Your task to perform on an android device: turn notification dots off Image 0: 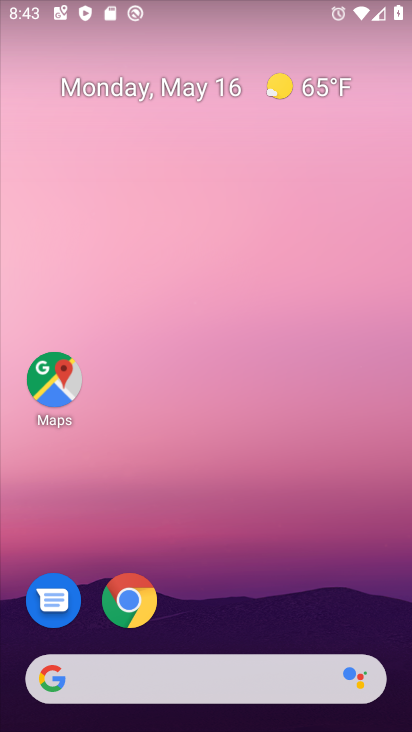
Step 0: drag from (194, 628) to (223, 166)
Your task to perform on an android device: turn notification dots off Image 1: 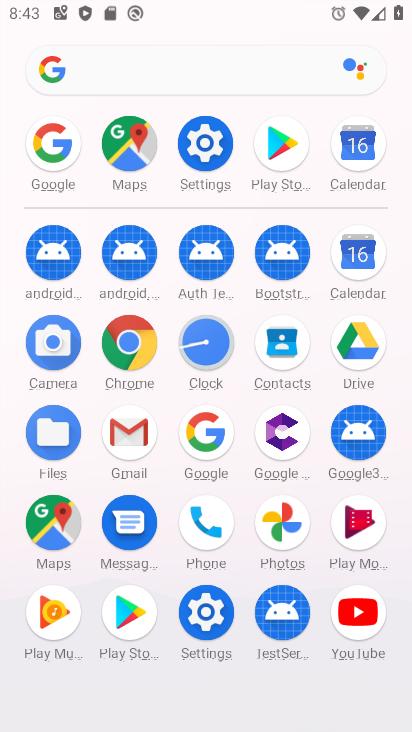
Step 1: click (205, 148)
Your task to perform on an android device: turn notification dots off Image 2: 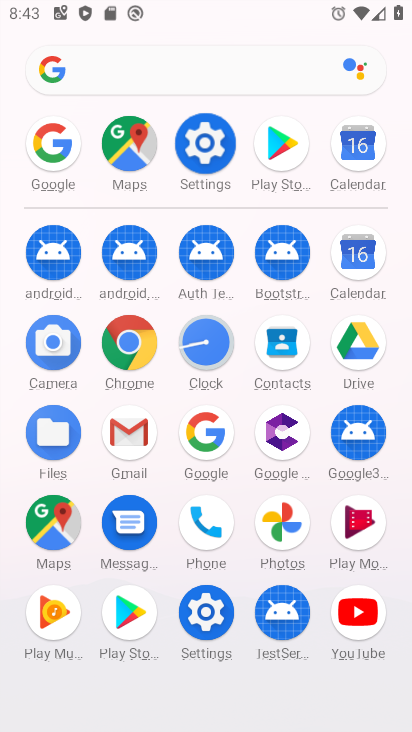
Step 2: click (206, 147)
Your task to perform on an android device: turn notification dots off Image 3: 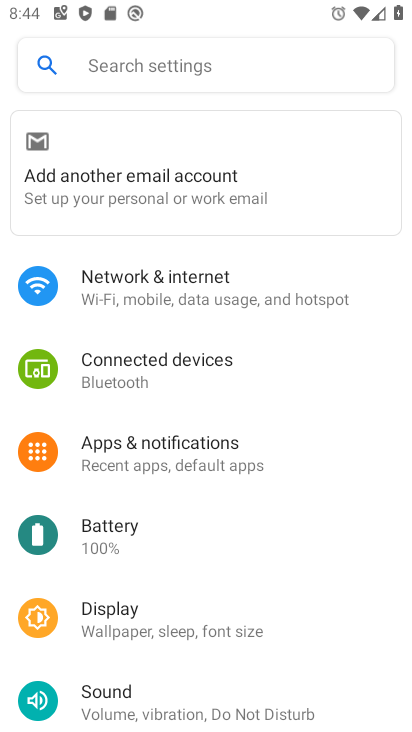
Step 3: click (179, 450)
Your task to perform on an android device: turn notification dots off Image 4: 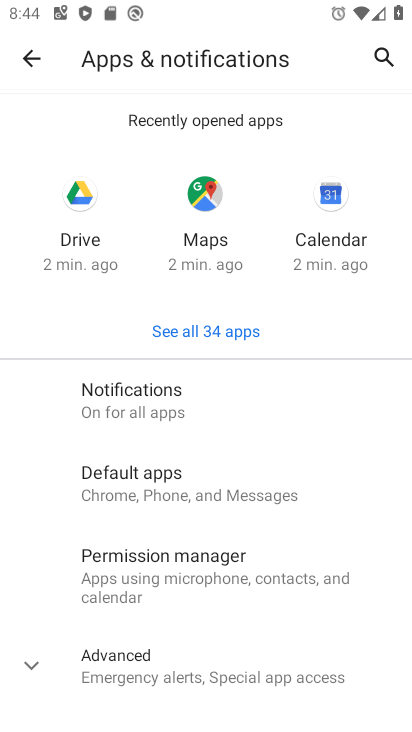
Step 4: click (220, 388)
Your task to perform on an android device: turn notification dots off Image 5: 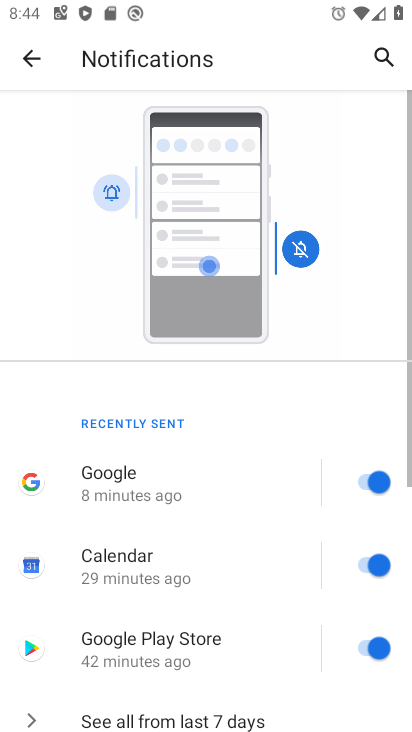
Step 5: drag from (220, 602) to (342, 21)
Your task to perform on an android device: turn notification dots off Image 6: 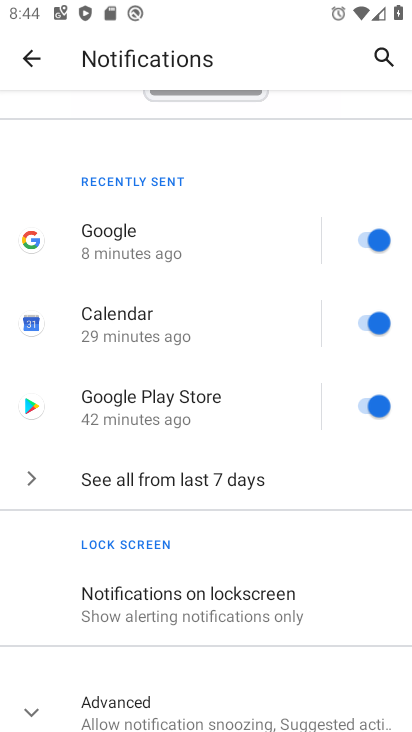
Step 6: drag from (219, 613) to (286, 204)
Your task to perform on an android device: turn notification dots off Image 7: 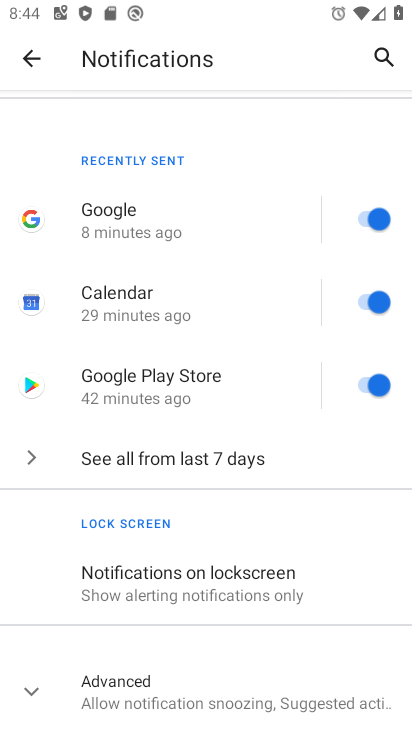
Step 7: drag from (220, 644) to (285, 236)
Your task to perform on an android device: turn notification dots off Image 8: 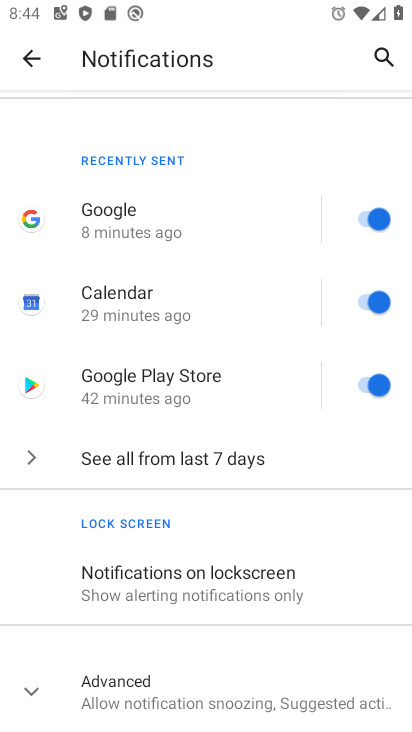
Step 8: click (196, 683)
Your task to perform on an android device: turn notification dots off Image 9: 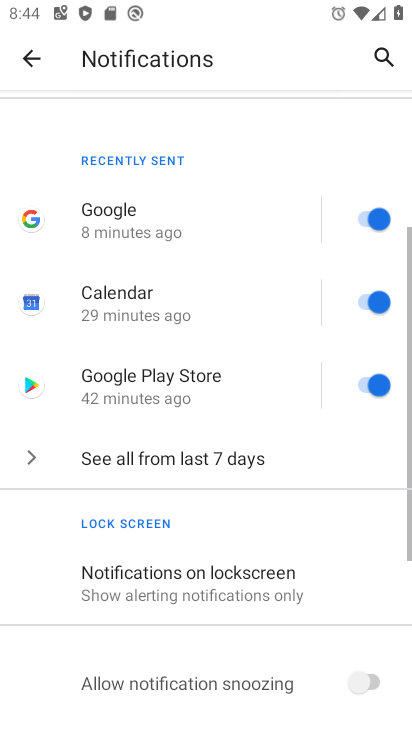
Step 9: drag from (196, 680) to (302, 13)
Your task to perform on an android device: turn notification dots off Image 10: 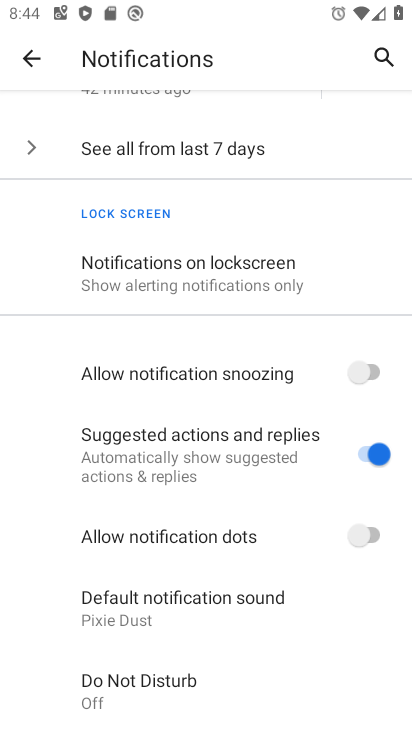
Step 10: click (345, 536)
Your task to perform on an android device: turn notification dots off Image 11: 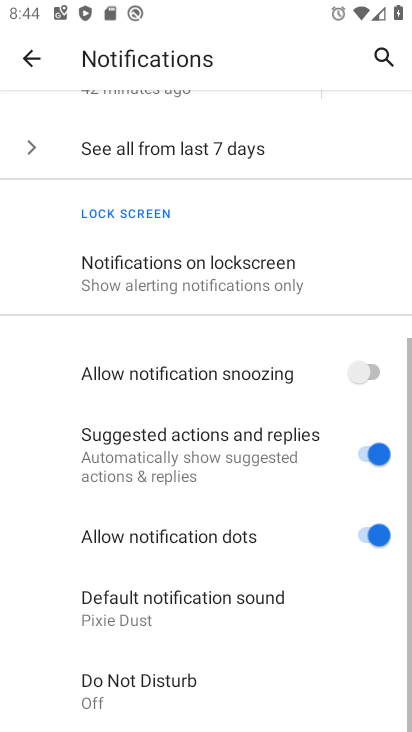
Step 11: click (345, 536)
Your task to perform on an android device: turn notification dots off Image 12: 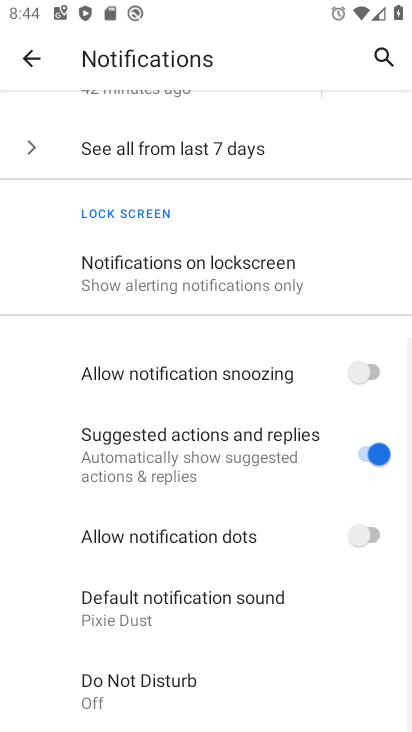
Step 12: task complete